Your task to perform on an android device: change timer sound Image 0: 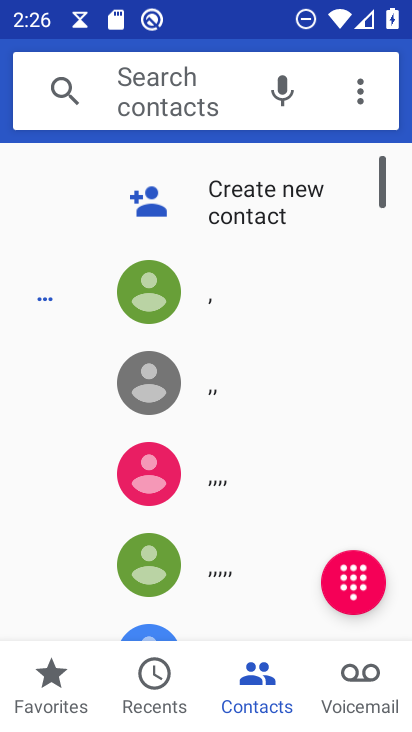
Step 0: press home button
Your task to perform on an android device: change timer sound Image 1: 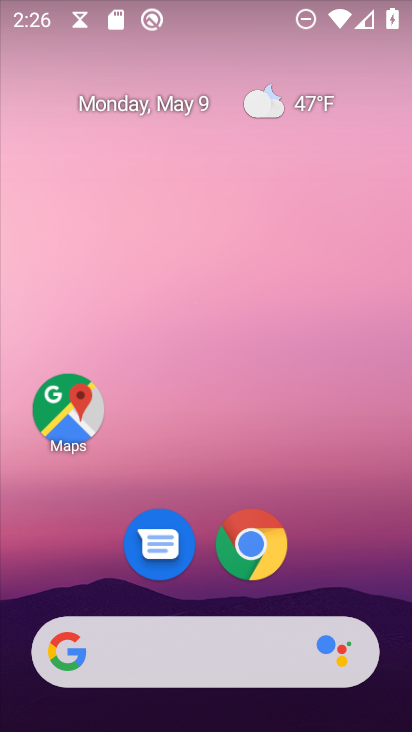
Step 1: drag from (369, 555) to (406, 255)
Your task to perform on an android device: change timer sound Image 2: 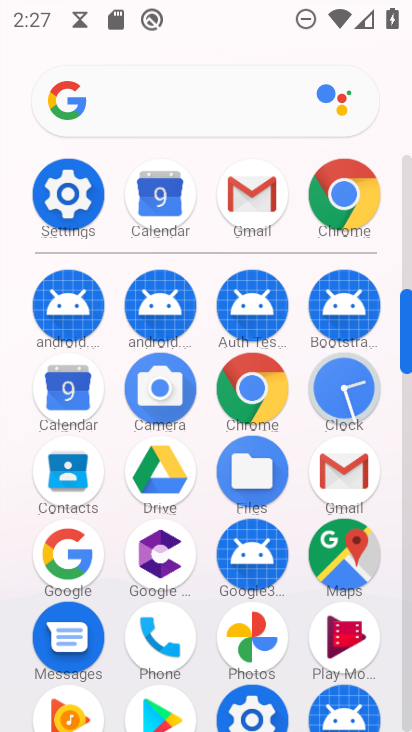
Step 2: click (351, 400)
Your task to perform on an android device: change timer sound Image 3: 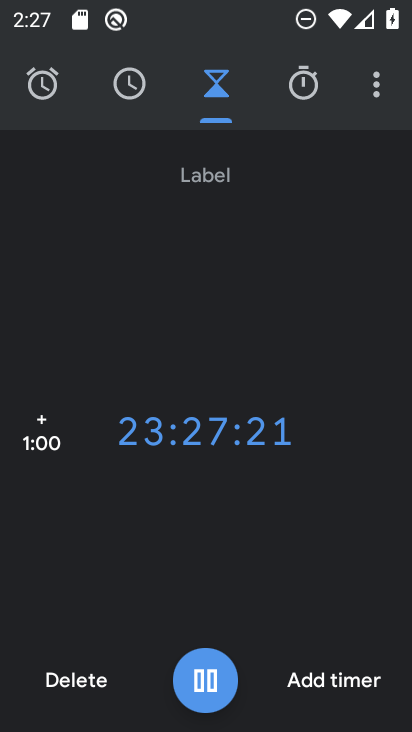
Step 3: click (364, 77)
Your task to perform on an android device: change timer sound Image 4: 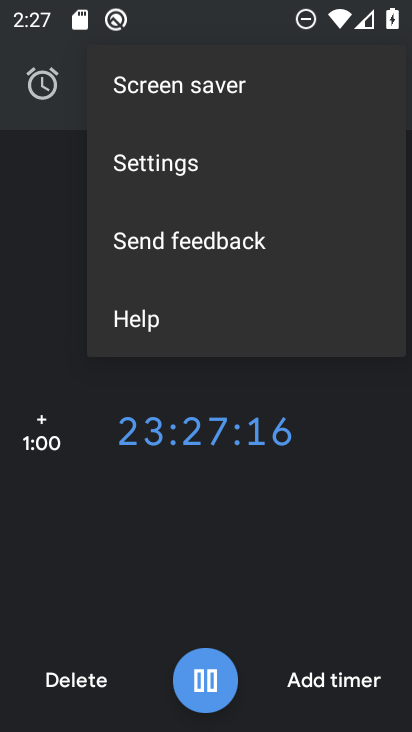
Step 4: click (199, 163)
Your task to perform on an android device: change timer sound Image 5: 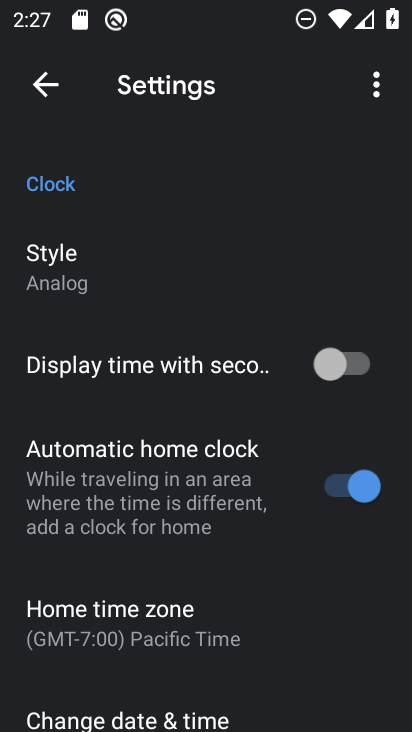
Step 5: drag from (147, 598) to (153, 268)
Your task to perform on an android device: change timer sound Image 6: 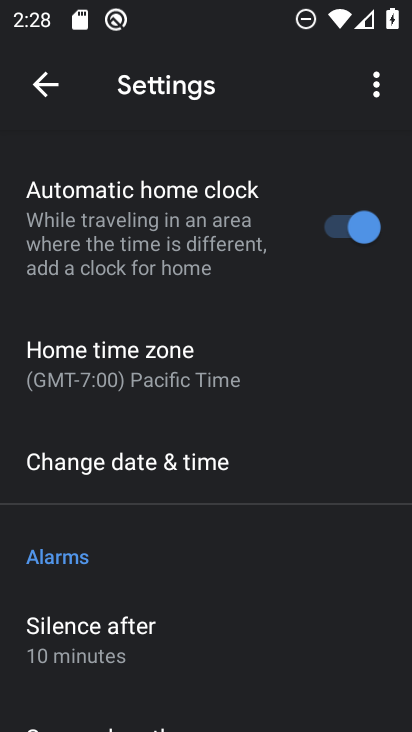
Step 6: drag from (174, 557) to (237, 296)
Your task to perform on an android device: change timer sound Image 7: 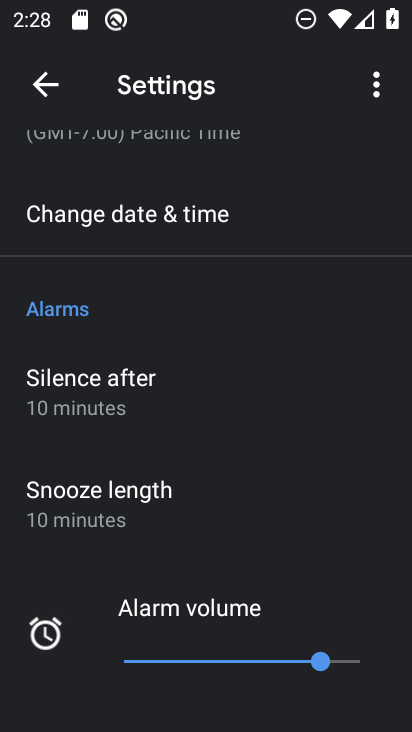
Step 7: drag from (201, 516) to (261, 259)
Your task to perform on an android device: change timer sound Image 8: 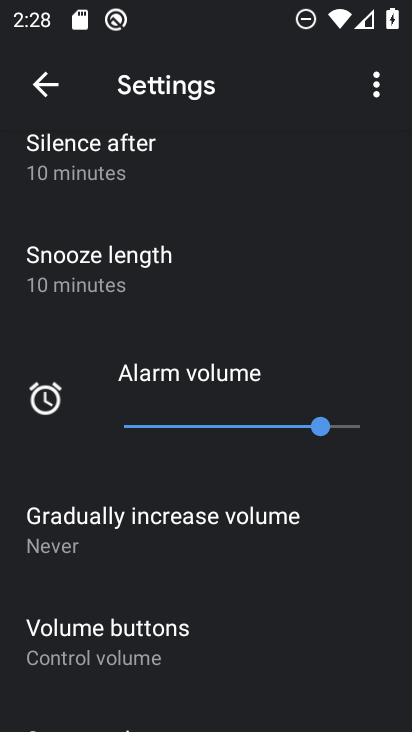
Step 8: drag from (229, 587) to (316, 213)
Your task to perform on an android device: change timer sound Image 9: 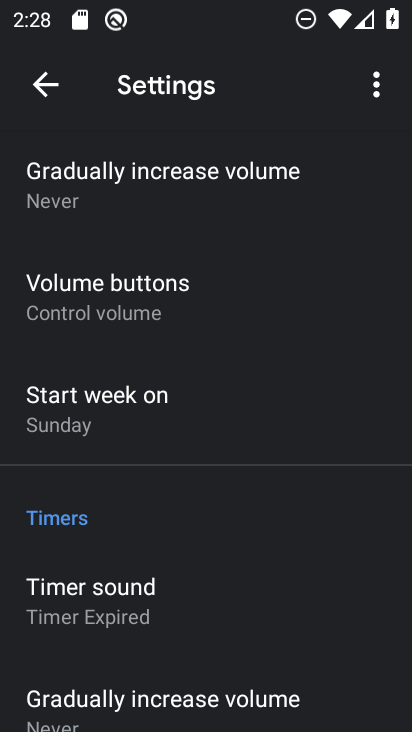
Step 9: click (151, 594)
Your task to perform on an android device: change timer sound Image 10: 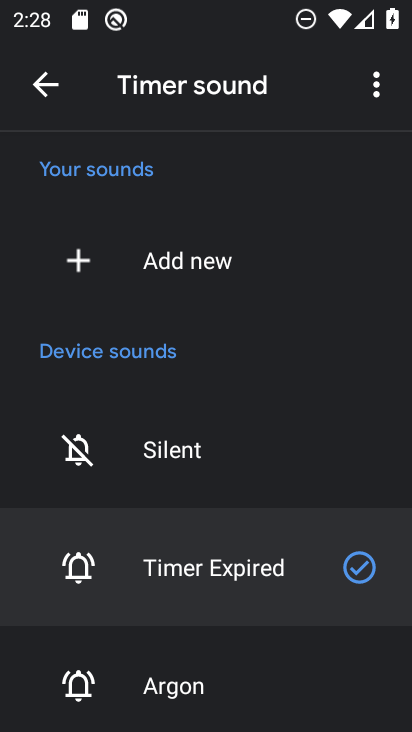
Step 10: click (190, 682)
Your task to perform on an android device: change timer sound Image 11: 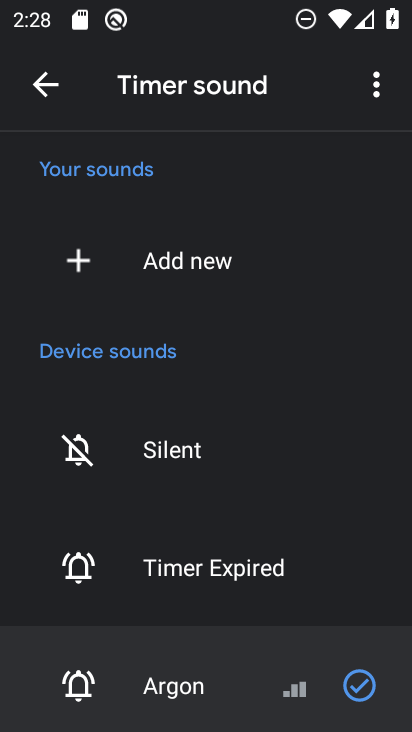
Step 11: task complete